Your task to perform on an android device: Open Chrome and go to settings Image 0: 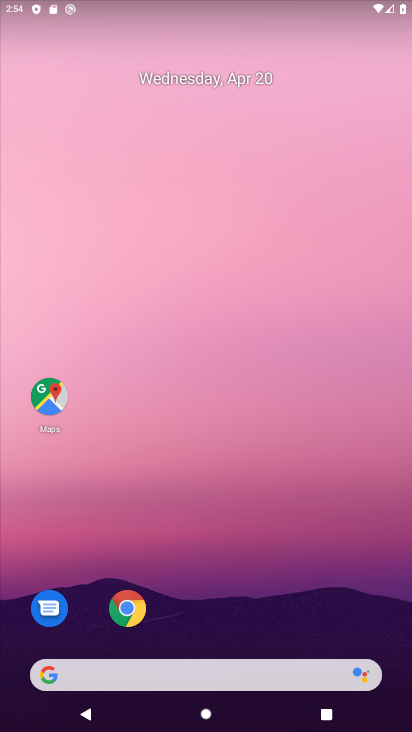
Step 0: click (128, 602)
Your task to perform on an android device: Open Chrome and go to settings Image 1: 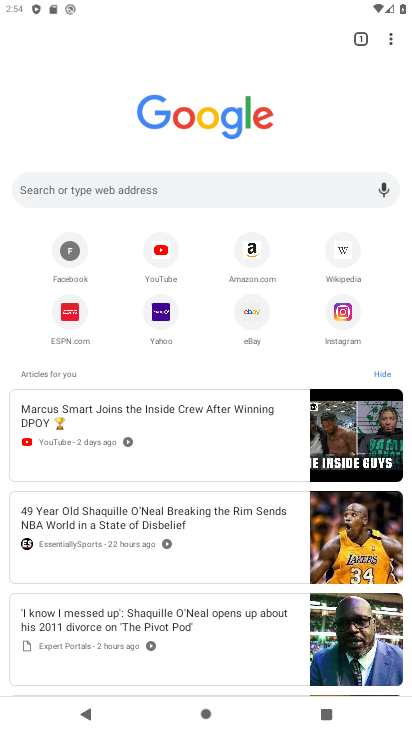
Step 1: click (387, 55)
Your task to perform on an android device: Open Chrome and go to settings Image 2: 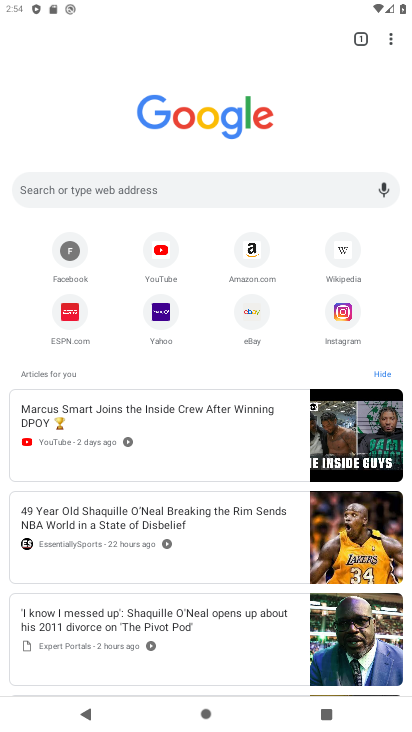
Step 2: click (387, 55)
Your task to perform on an android device: Open Chrome and go to settings Image 3: 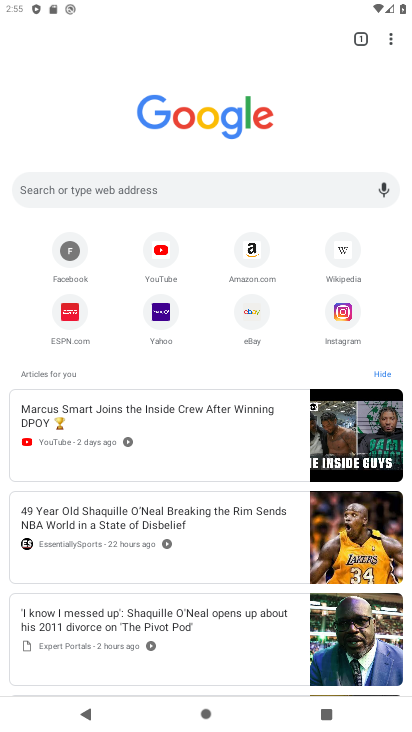
Step 3: click (384, 38)
Your task to perform on an android device: Open Chrome and go to settings Image 4: 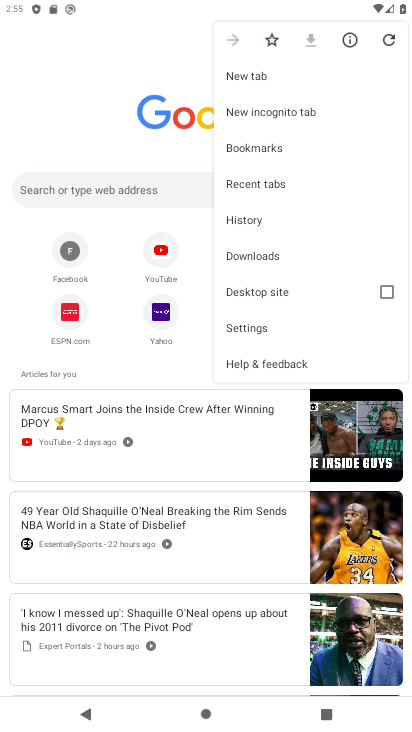
Step 4: click (258, 335)
Your task to perform on an android device: Open Chrome and go to settings Image 5: 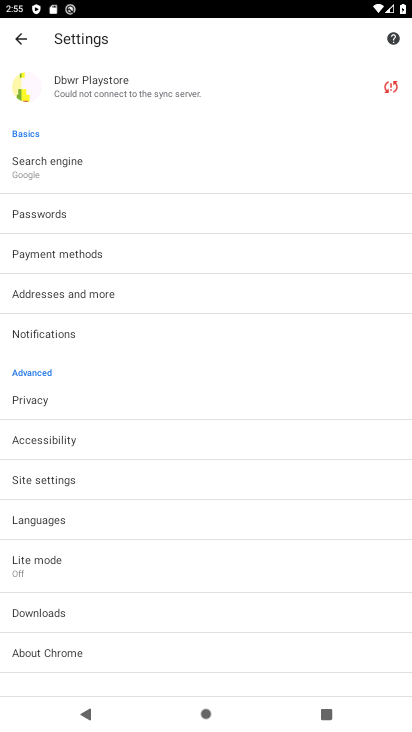
Step 5: task complete